Your task to perform on an android device: toggle pop-ups in chrome Image 0: 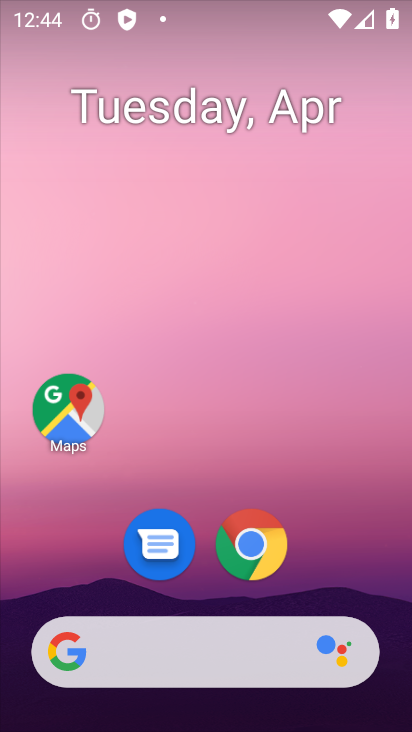
Step 0: click (250, 544)
Your task to perform on an android device: toggle pop-ups in chrome Image 1: 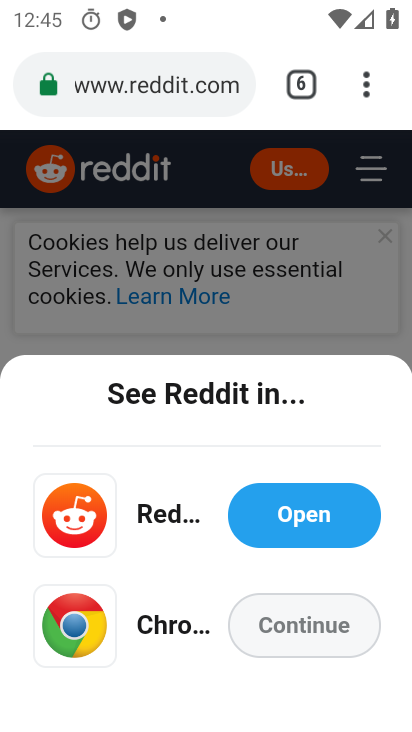
Step 1: click (364, 89)
Your task to perform on an android device: toggle pop-ups in chrome Image 2: 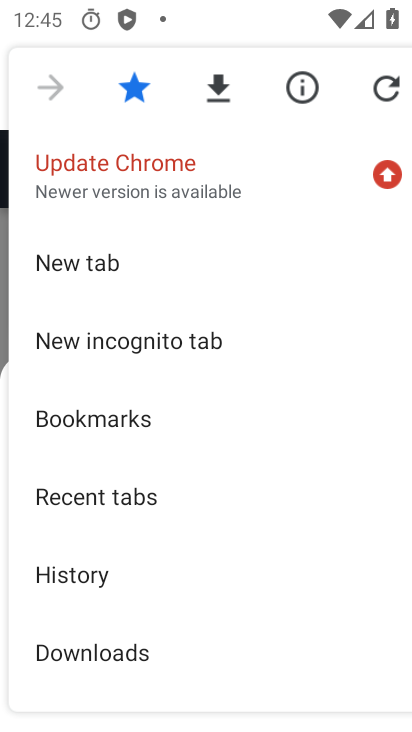
Step 2: drag from (336, 562) to (314, 294)
Your task to perform on an android device: toggle pop-ups in chrome Image 3: 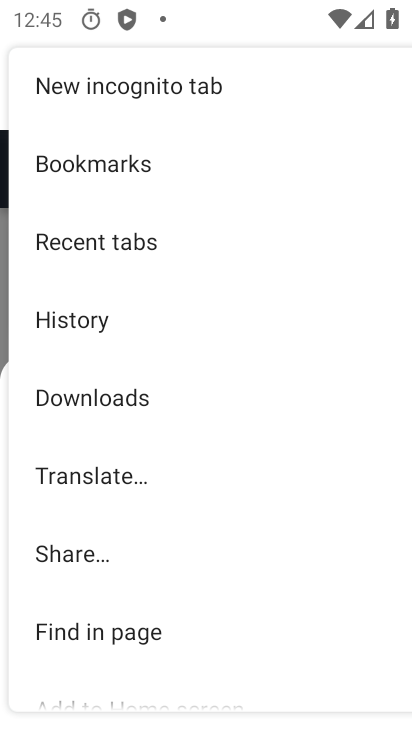
Step 3: drag from (335, 550) to (291, 169)
Your task to perform on an android device: toggle pop-ups in chrome Image 4: 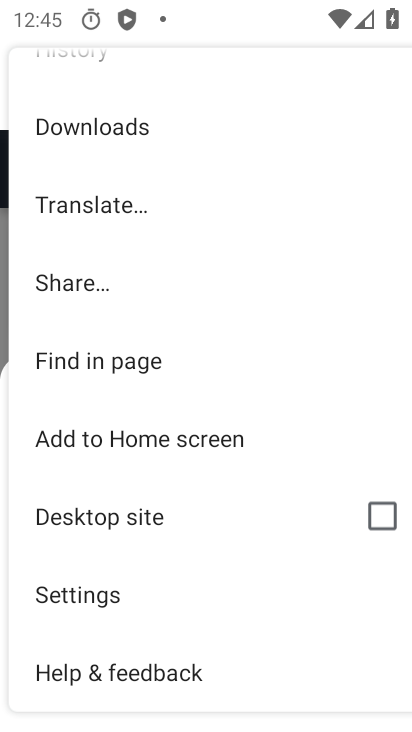
Step 4: click (67, 606)
Your task to perform on an android device: toggle pop-ups in chrome Image 5: 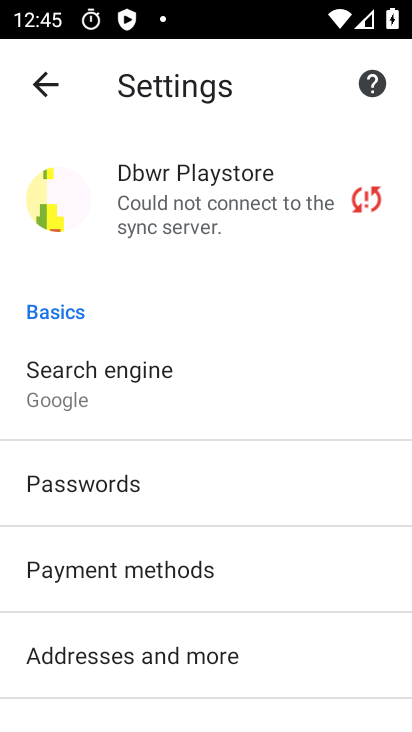
Step 5: drag from (315, 638) to (287, 277)
Your task to perform on an android device: toggle pop-ups in chrome Image 6: 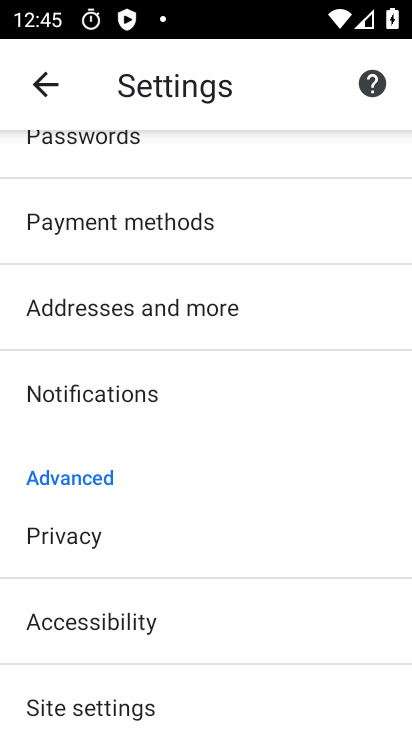
Step 6: drag from (241, 608) to (228, 305)
Your task to perform on an android device: toggle pop-ups in chrome Image 7: 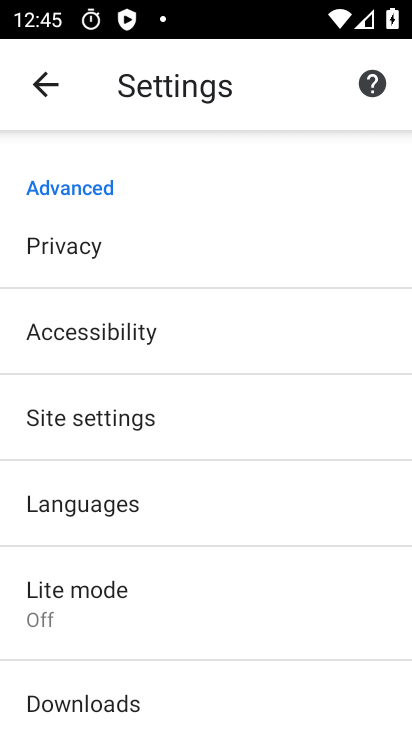
Step 7: click (107, 418)
Your task to perform on an android device: toggle pop-ups in chrome Image 8: 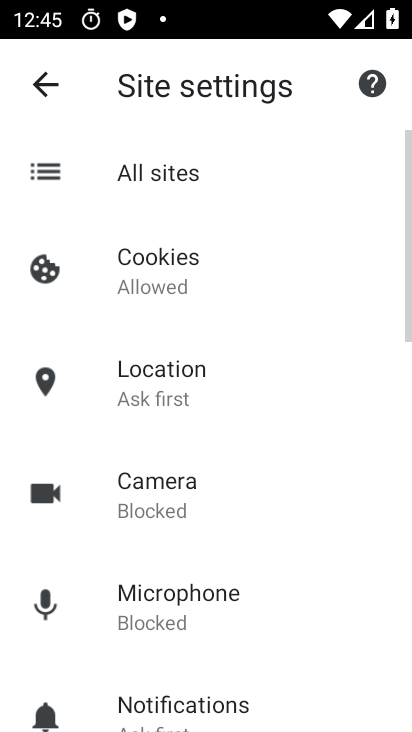
Step 8: drag from (308, 615) to (300, 246)
Your task to perform on an android device: toggle pop-ups in chrome Image 9: 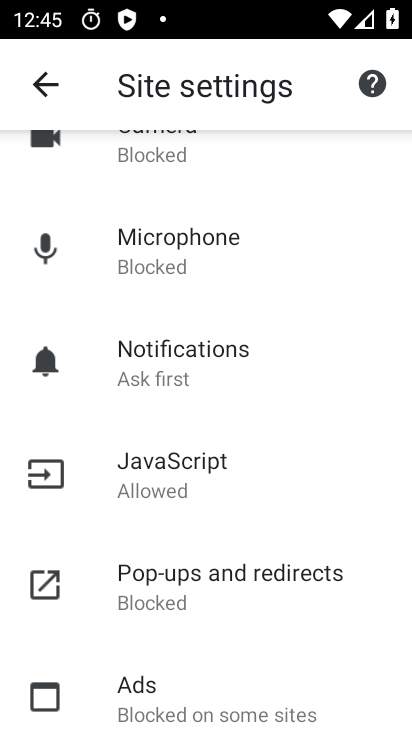
Step 9: click (167, 582)
Your task to perform on an android device: toggle pop-ups in chrome Image 10: 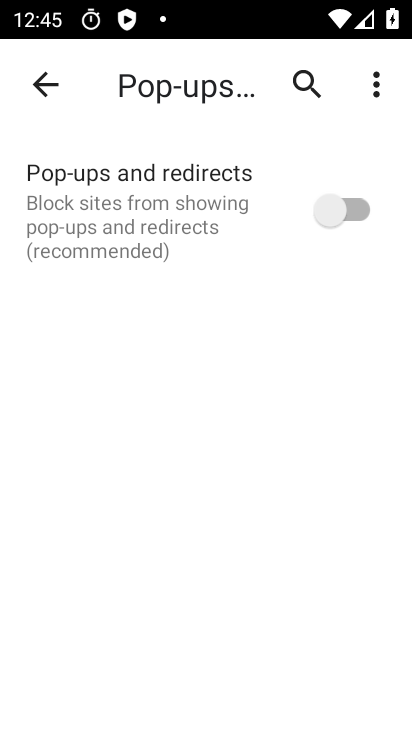
Step 10: click (335, 214)
Your task to perform on an android device: toggle pop-ups in chrome Image 11: 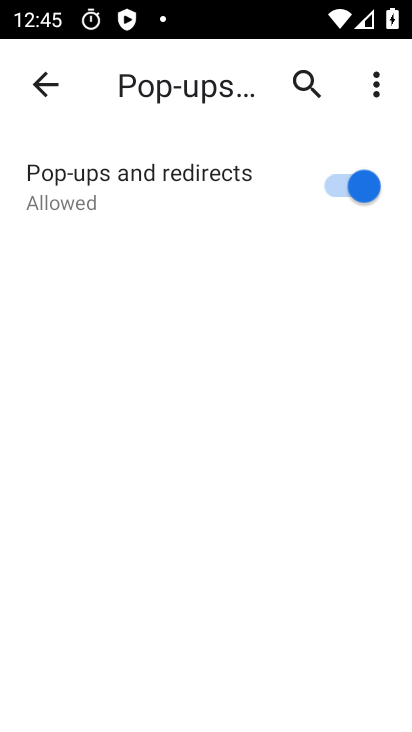
Step 11: task complete